Your task to perform on an android device: Open Youtube and go to "Your channel" Image 0: 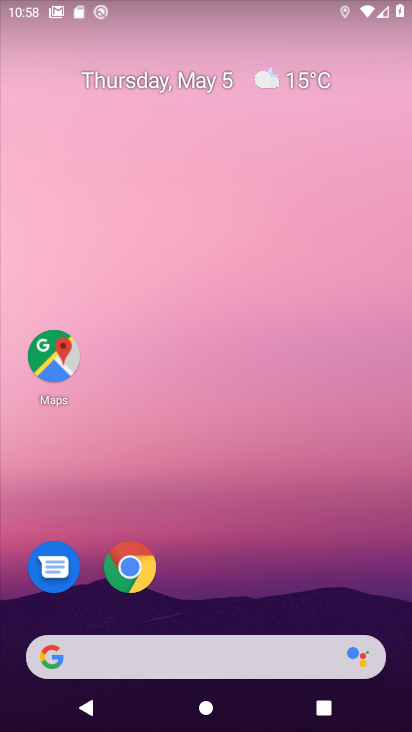
Step 0: drag from (342, 594) to (302, 29)
Your task to perform on an android device: Open Youtube and go to "Your channel" Image 1: 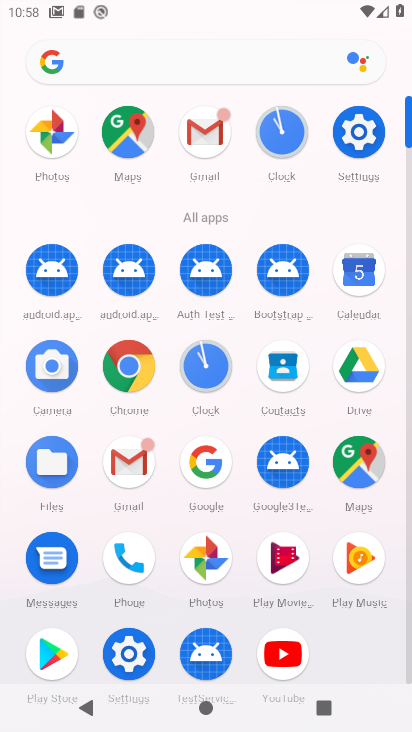
Step 1: click (279, 651)
Your task to perform on an android device: Open Youtube and go to "Your channel" Image 2: 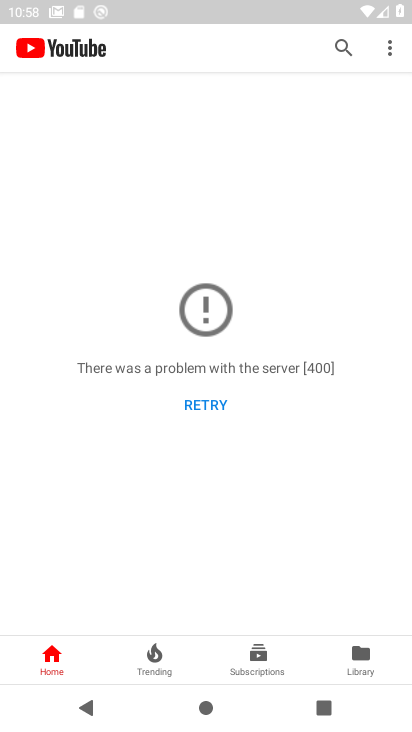
Step 2: task complete